Your task to perform on an android device: Clear all items from cart on costco. Search for razer huntsman on costco, select the first entry, add it to the cart, then select checkout. Image 0: 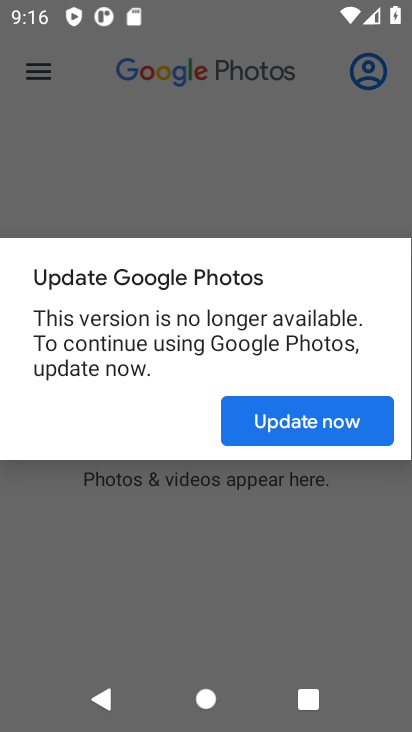
Step 0: press home button
Your task to perform on an android device: Clear all items from cart on costco. Search for razer huntsman on costco, select the first entry, add it to the cart, then select checkout. Image 1: 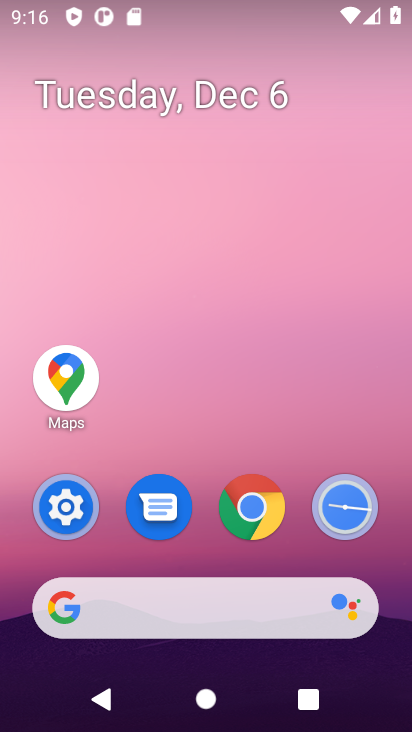
Step 1: click (100, 602)
Your task to perform on an android device: Clear all items from cart on costco. Search for razer huntsman on costco, select the first entry, add it to the cart, then select checkout. Image 2: 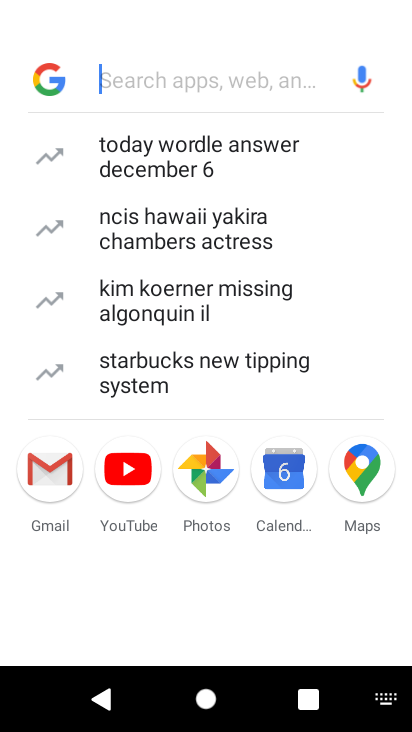
Step 2: type "costco"
Your task to perform on an android device: Clear all items from cart on costco. Search for razer huntsman on costco, select the first entry, add it to the cart, then select checkout. Image 3: 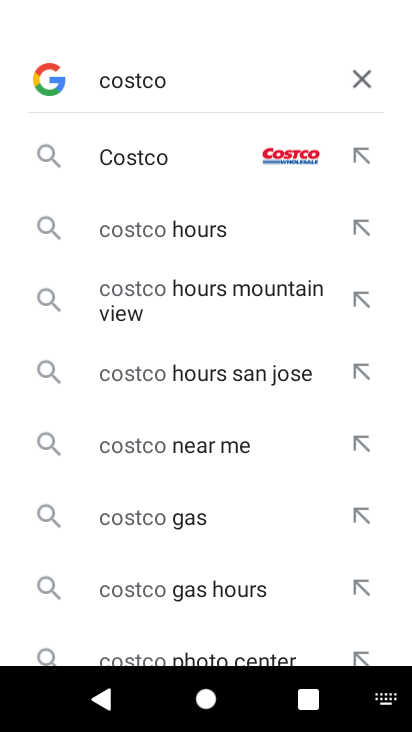
Step 3: press enter
Your task to perform on an android device: Clear all items from cart on costco. Search for razer huntsman on costco, select the first entry, add it to the cart, then select checkout. Image 4: 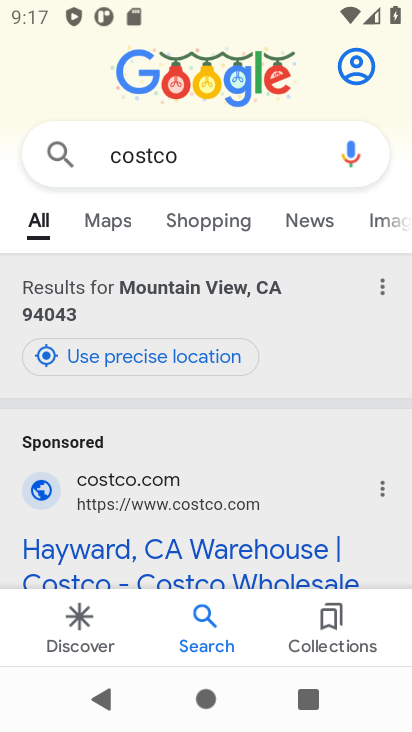
Step 4: drag from (334, 535) to (316, 305)
Your task to perform on an android device: Clear all items from cart on costco. Search for razer huntsman on costco, select the first entry, add it to the cart, then select checkout. Image 5: 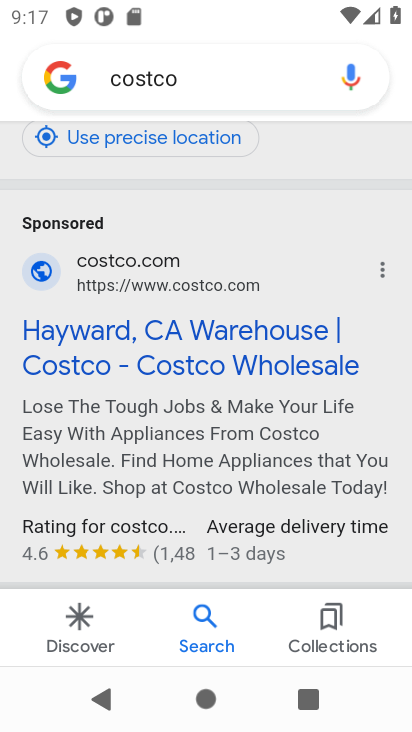
Step 5: click (218, 347)
Your task to perform on an android device: Clear all items from cart on costco. Search for razer huntsman on costco, select the first entry, add it to the cart, then select checkout. Image 6: 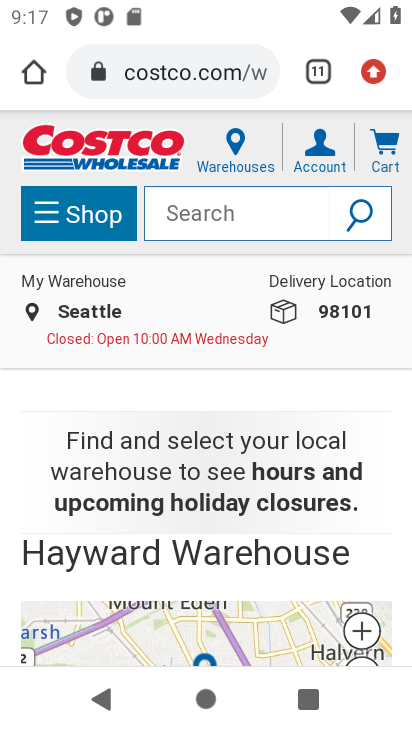
Step 6: click (382, 150)
Your task to perform on an android device: Clear all items from cart on costco. Search for razer huntsman on costco, select the first entry, add it to the cart, then select checkout. Image 7: 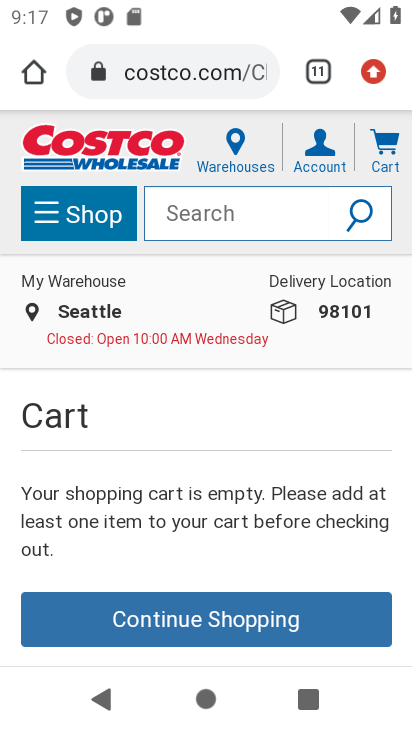
Step 7: click (210, 216)
Your task to perform on an android device: Clear all items from cart on costco. Search for razer huntsman on costco, select the first entry, add it to the cart, then select checkout. Image 8: 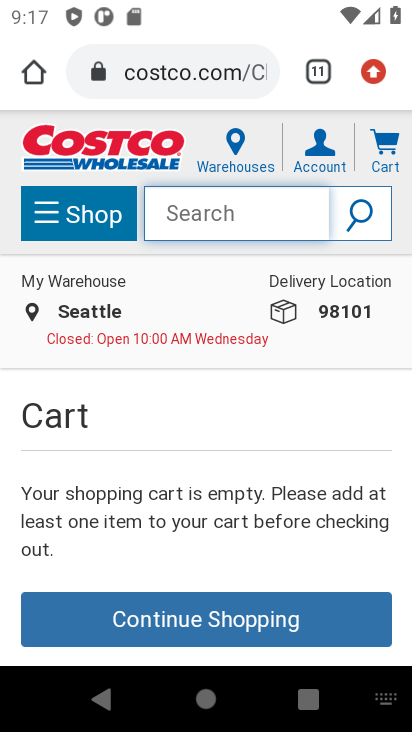
Step 8: type "razer huntsman"
Your task to perform on an android device: Clear all items from cart on costco. Search for razer huntsman on costco, select the first entry, add it to the cart, then select checkout. Image 9: 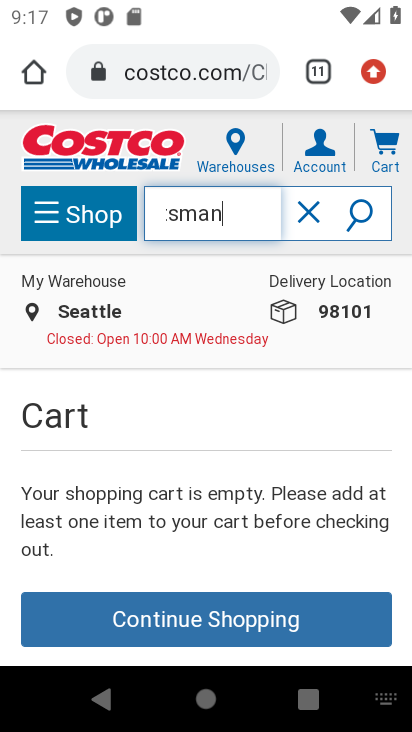
Step 9: press enter
Your task to perform on an android device: Clear all items from cart on costco. Search for razer huntsman on costco, select the first entry, add it to the cart, then select checkout. Image 10: 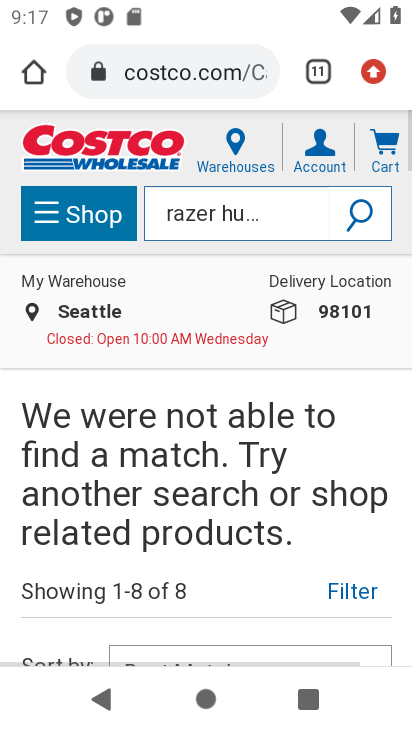
Step 10: task complete